Your task to perform on an android device: turn on the 24-hour format for clock Image 0: 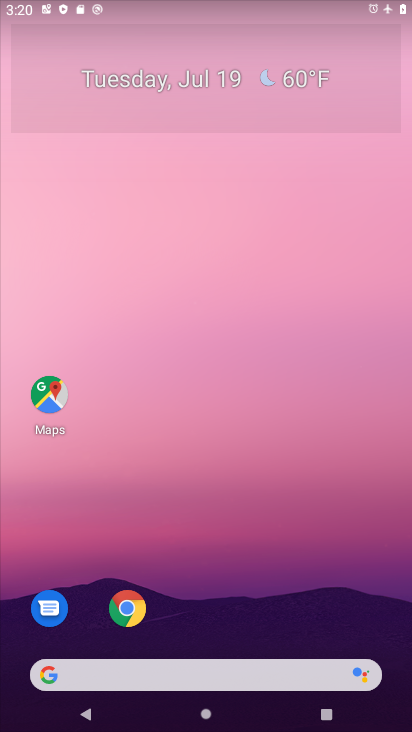
Step 0: drag from (298, 426) to (304, 55)
Your task to perform on an android device: turn on the 24-hour format for clock Image 1: 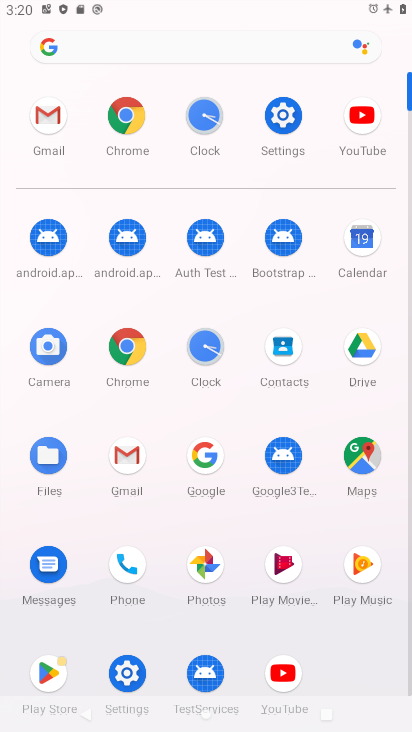
Step 1: click (208, 345)
Your task to perform on an android device: turn on the 24-hour format for clock Image 2: 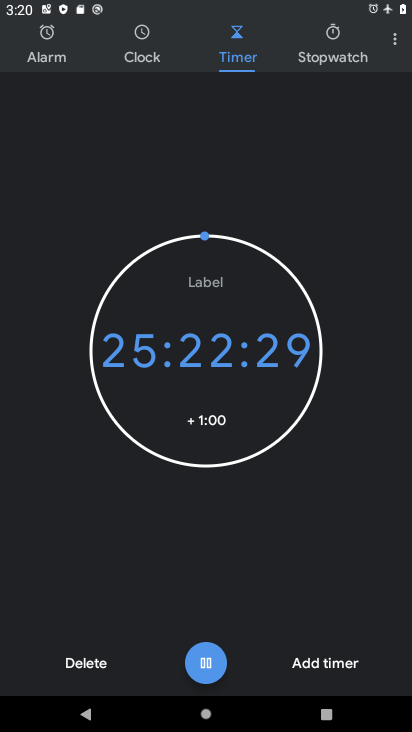
Step 2: click (398, 41)
Your task to perform on an android device: turn on the 24-hour format for clock Image 3: 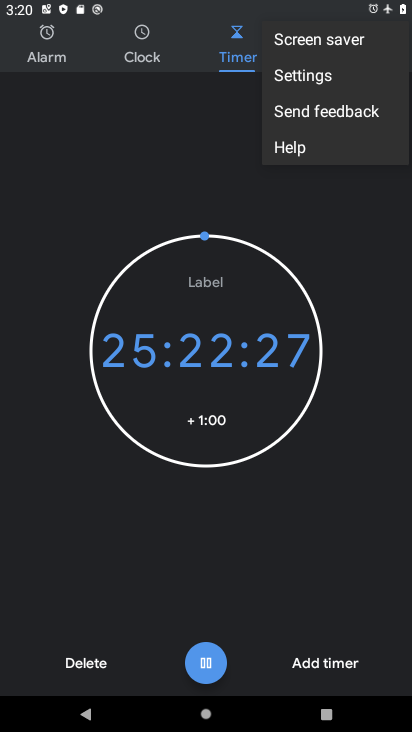
Step 3: click (319, 81)
Your task to perform on an android device: turn on the 24-hour format for clock Image 4: 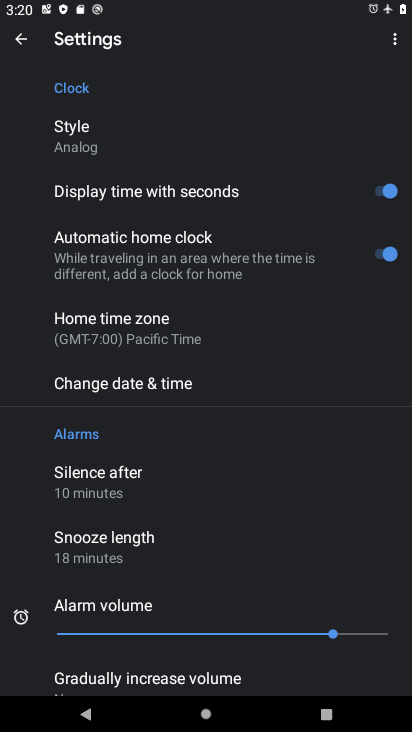
Step 4: click (136, 385)
Your task to perform on an android device: turn on the 24-hour format for clock Image 5: 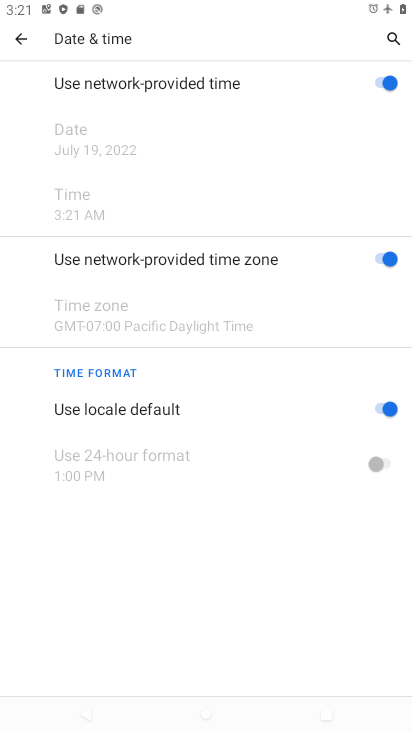
Step 5: click (393, 401)
Your task to perform on an android device: turn on the 24-hour format for clock Image 6: 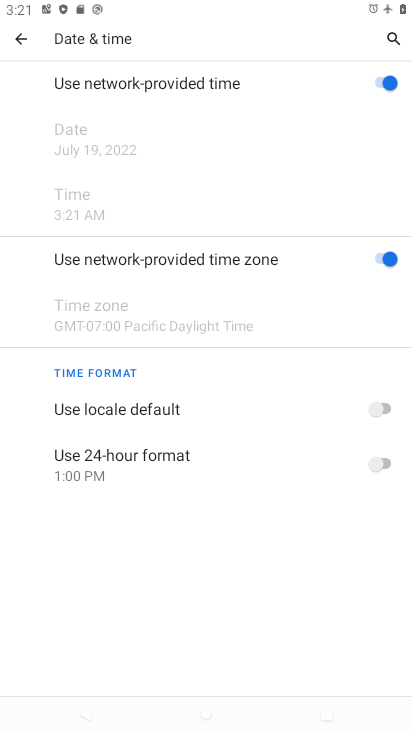
Step 6: click (371, 459)
Your task to perform on an android device: turn on the 24-hour format for clock Image 7: 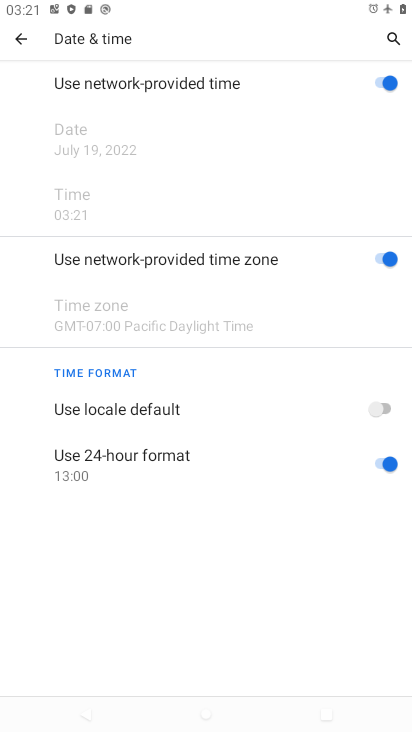
Step 7: task complete